Your task to perform on an android device: Clear the cart on amazon.com. Image 0: 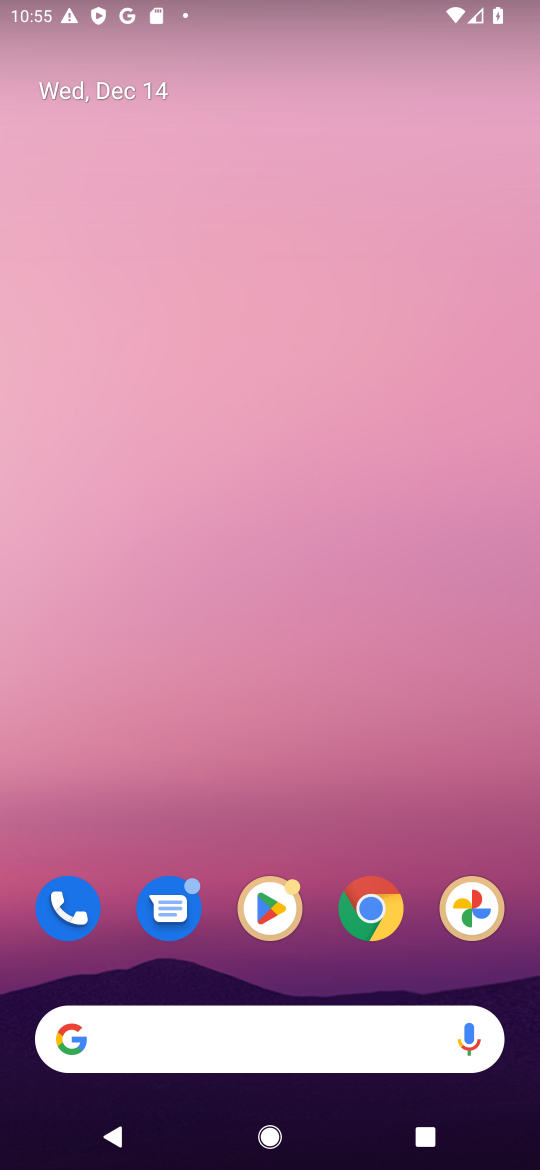
Step 0: click (357, 904)
Your task to perform on an android device: Clear the cart on amazon.com. Image 1: 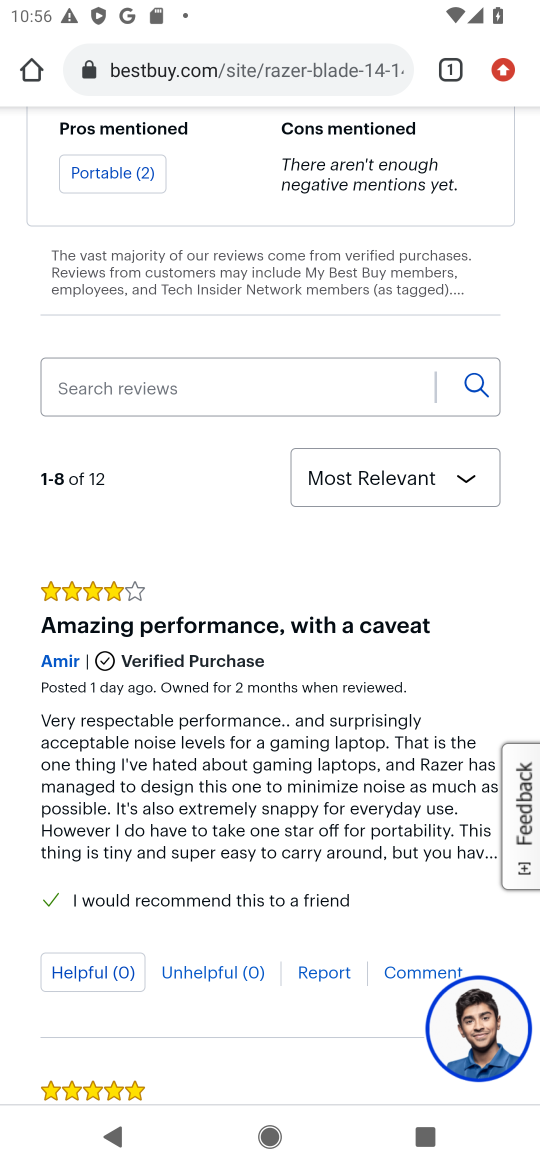
Step 1: task complete